Your task to perform on an android device: toggle pop-ups in chrome Image 0: 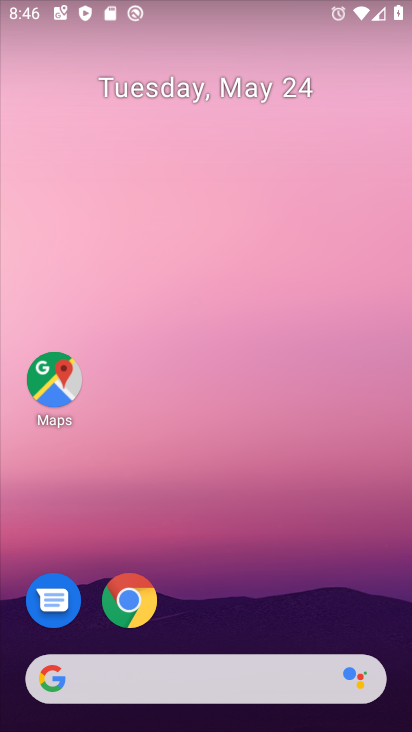
Step 0: click (133, 601)
Your task to perform on an android device: toggle pop-ups in chrome Image 1: 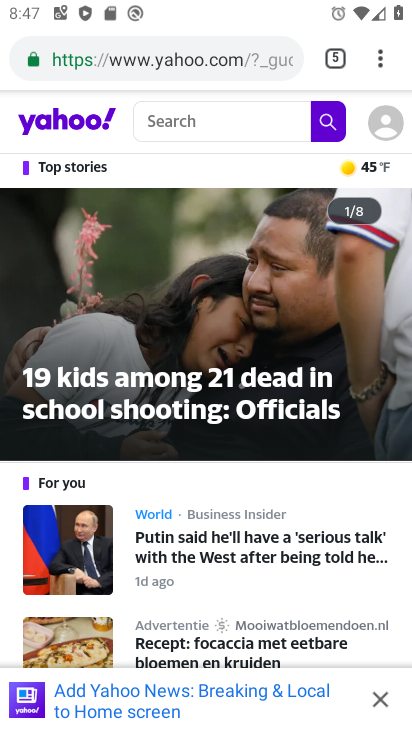
Step 1: click (380, 66)
Your task to perform on an android device: toggle pop-ups in chrome Image 2: 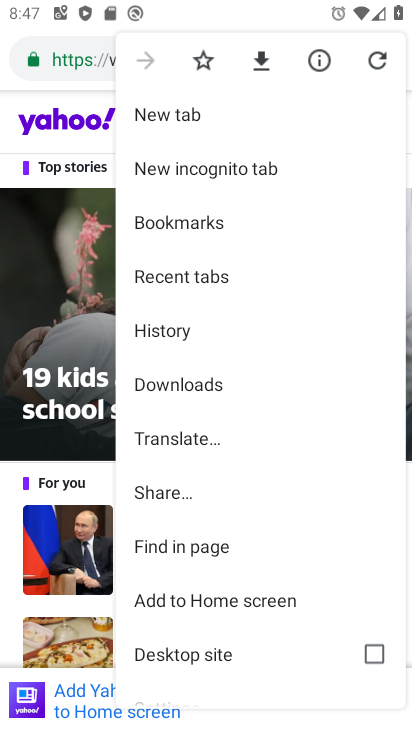
Step 2: drag from (186, 599) to (158, 299)
Your task to perform on an android device: toggle pop-ups in chrome Image 3: 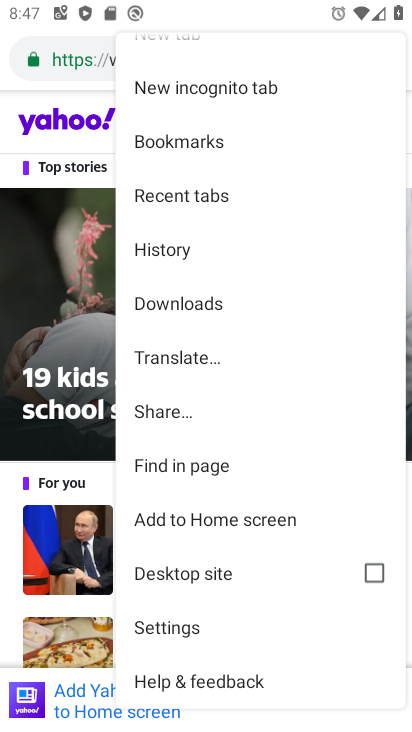
Step 3: click (183, 623)
Your task to perform on an android device: toggle pop-ups in chrome Image 4: 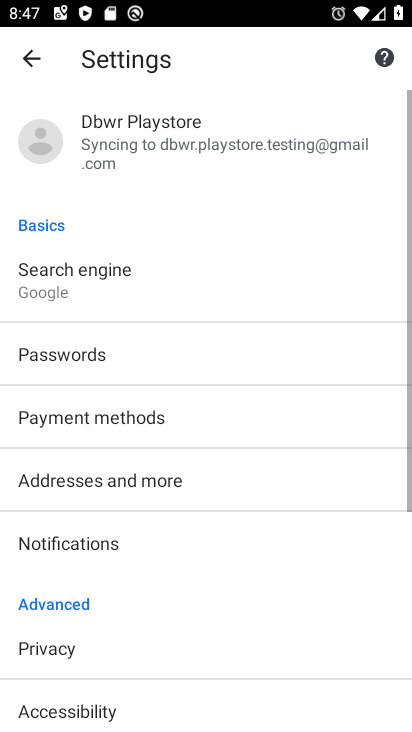
Step 4: drag from (181, 650) to (181, 533)
Your task to perform on an android device: toggle pop-ups in chrome Image 5: 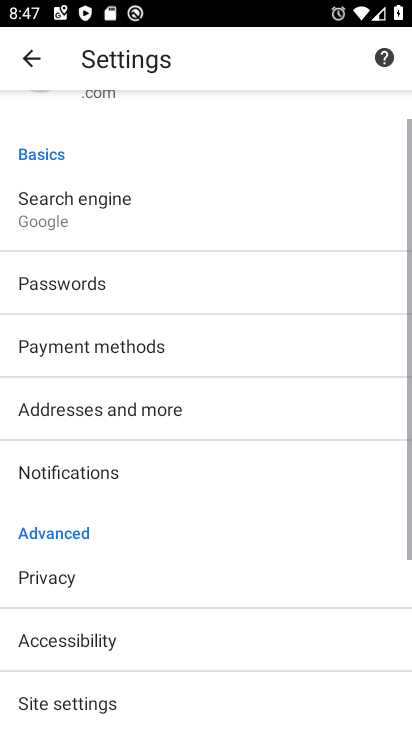
Step 5: drag from (181, 451) to (181, 345)
Your task to perform on an android device: toggle pop-ups in chrome Image 6: 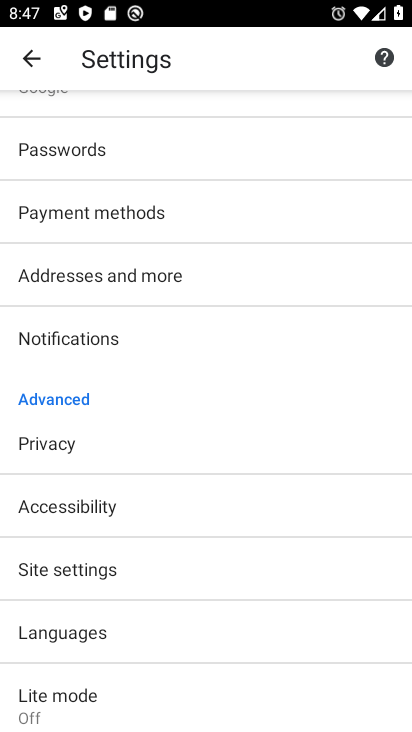
Step 6: click (87, 569)
Your task to perform on an android device: toggle pop-ups in chrome Image 7: 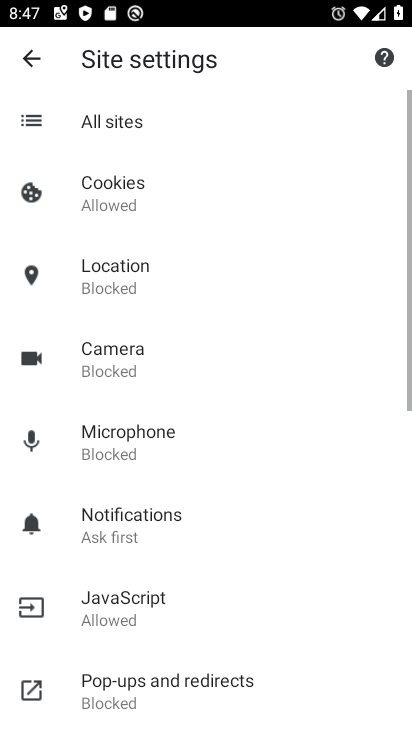
Step 7: drag from (134, 660) to (133, 301)
Your task to perform on an android device: toggle pop-ups in chrome Image 8: 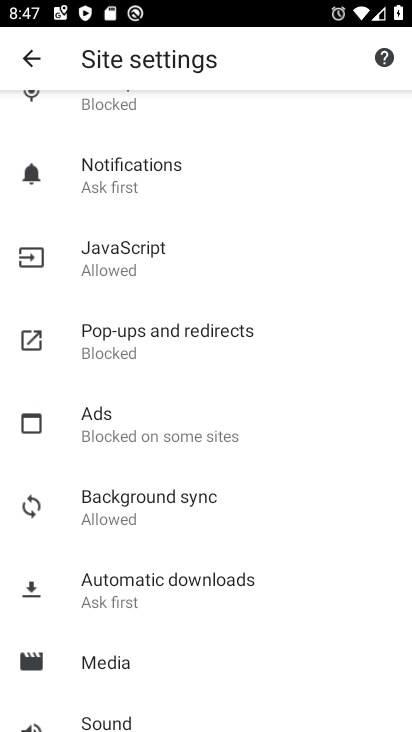
Step 8: click (161, 334)
Your task to perform on an android device: toggle pop-ups in chrome Image 9: 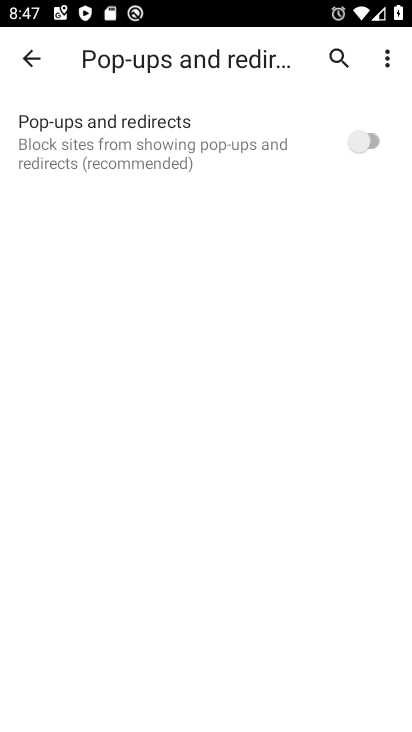
Step 9: click (368, 137)
Your task to perform on an android device: toggle pop-ups in chrome Image 10: 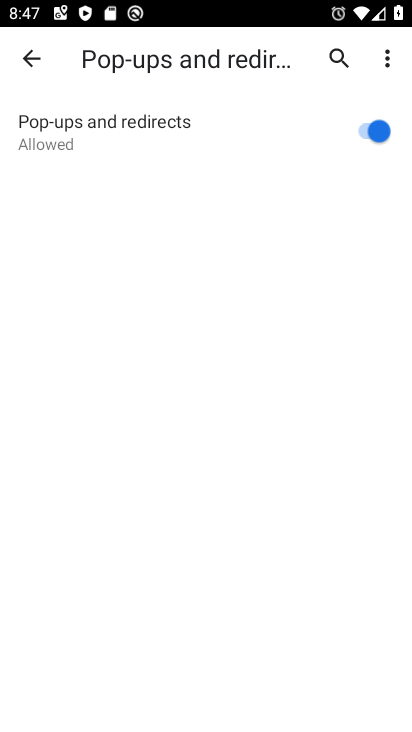
Step 10: task complete